Your task to perform on an android device: Open Yahoo.com Image 0: 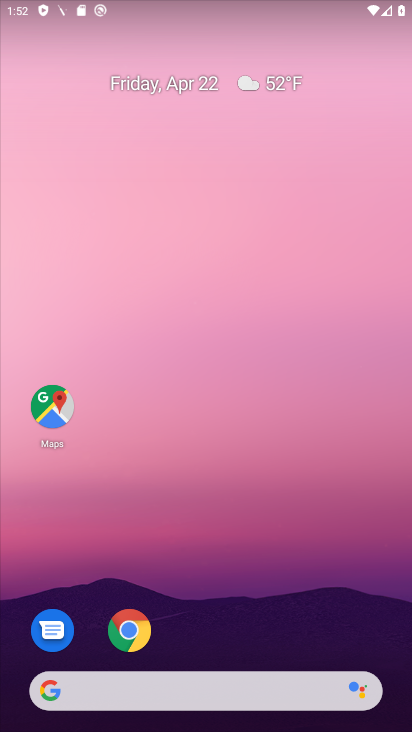
Step 0: click (141, 635)
Your task to perform on an android device: Open Yahoo.com Image 1: 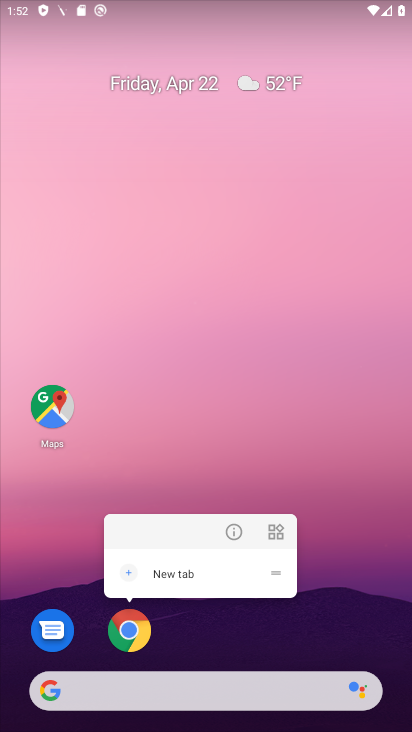
Step 1: click (229, 536)
Your task to perform on an android device: Open Yahoo.com Image 2: 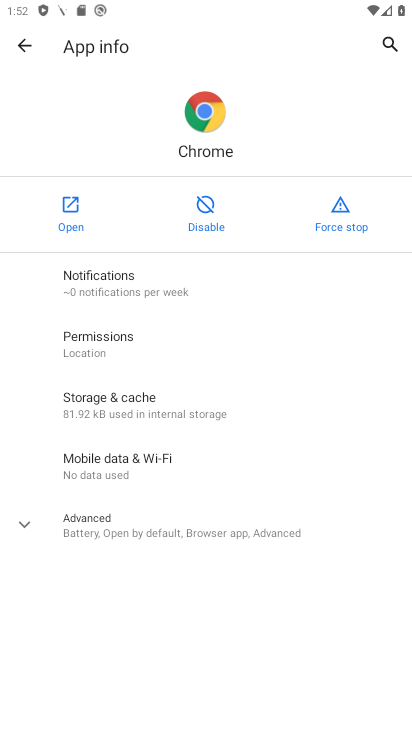
Step 2: click (69, 214)
Your task to perform on an android device: Open Yahoo.com Image 3: 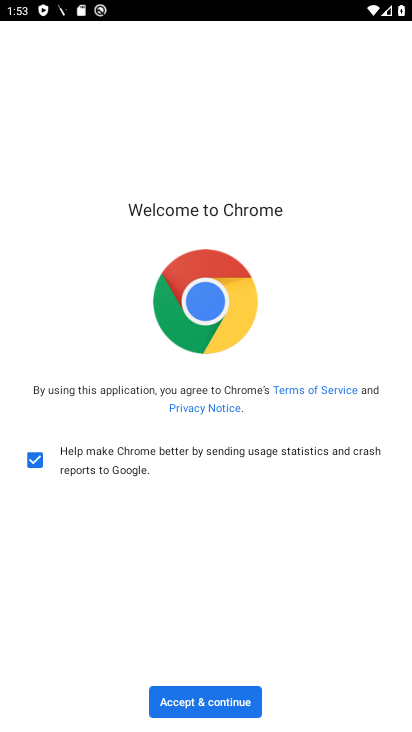
Step 3: click (200, 689)
Your task to perform on an android device: Open Yahoo.com Image 4: 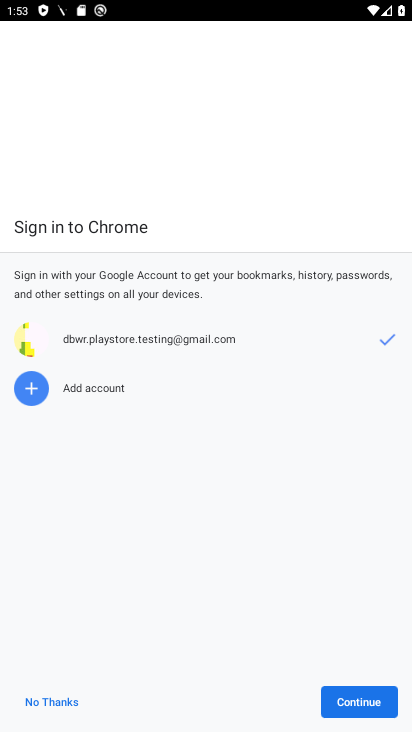
Step 4: click (340, 702)
Your task to perform on an android device: Open Yahoo.com Image 5: 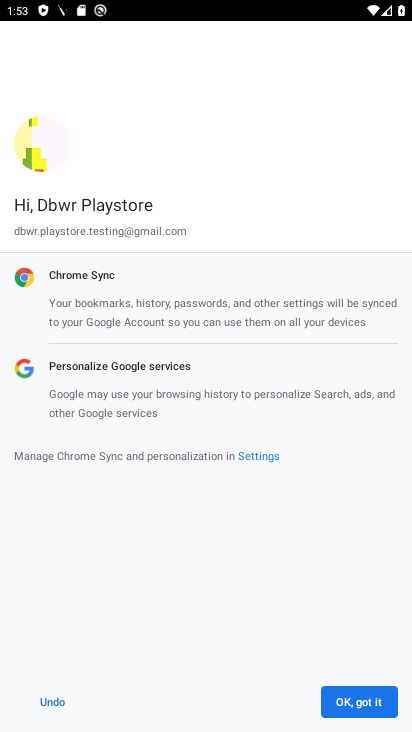
Step 5: click (346, 715)
Your task to perform on an android device: Open Yahoo.com Image 6: 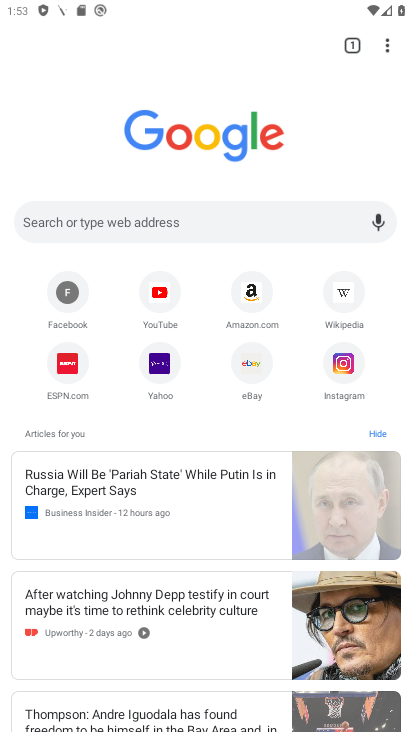
Step 6: click (160, 384)
Your task to perform on an android device: Open Yahoo.com Image 7: 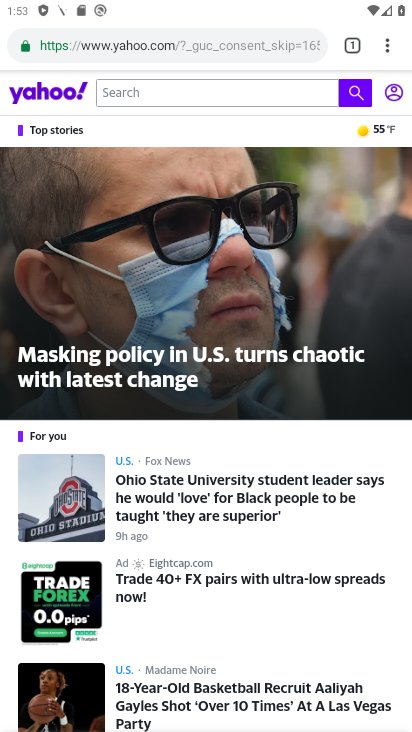
Step 7: task complete